Your task to perform on an android device: check data usage Image 0: 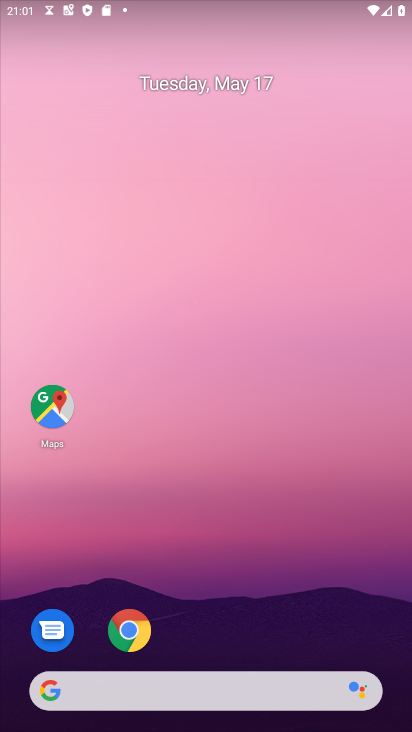
Step 0: drag from (190, 611) to (164, 147)
Your task to perform on an android device: check data usage Image 1: 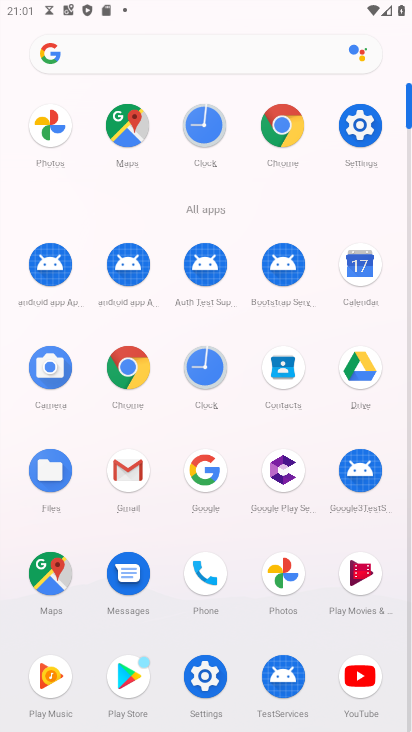
Step 1: click (214, 678)
Your task to perform on an android device: check data usage Image 2: 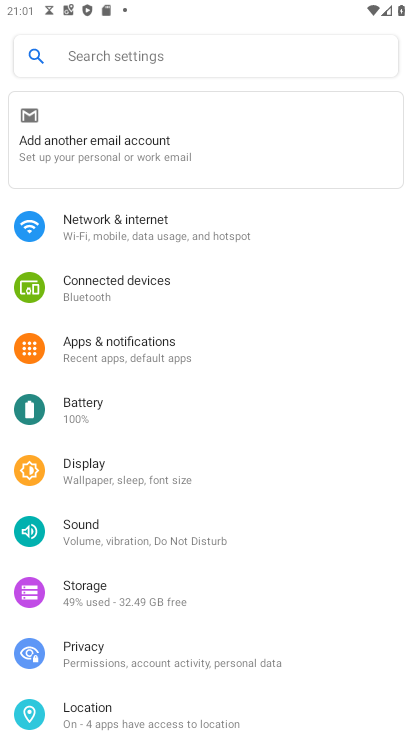
Step 2: click (145, 229)
Your task to perform on an android device: check data usage Image 3: 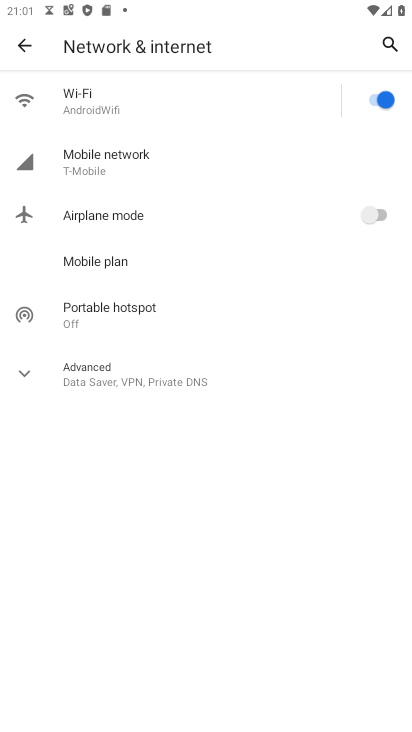
Step 3: click (161, 114)
Your task to perform on an android device: check data usage Image 4: 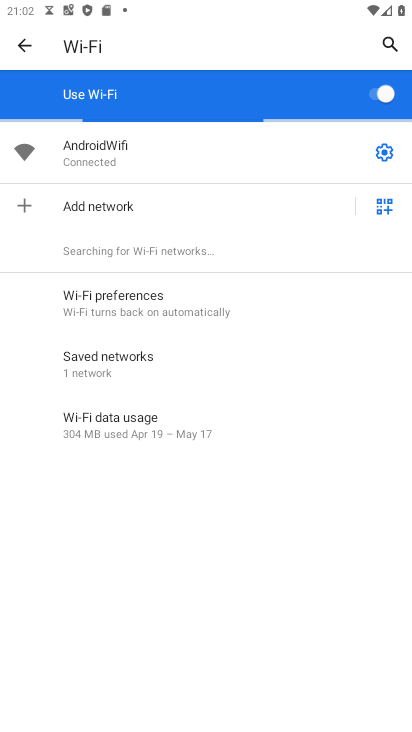
Step 4: task complete